Your task to perform on an android device: Open sound settings Image 0: 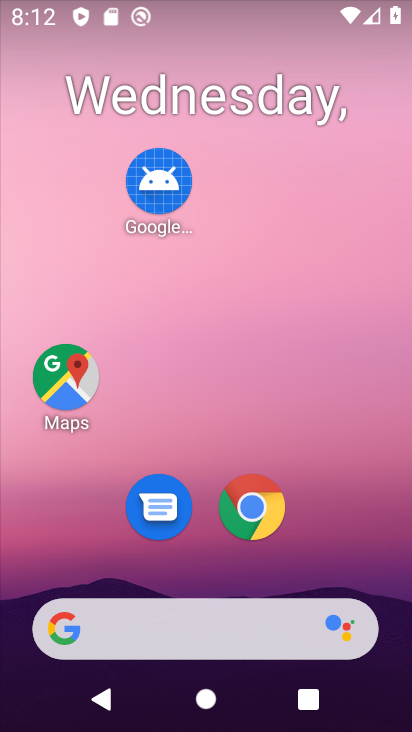
Step 0: drag from (208, 554) to (263, 39)
Your task to perform on an android device: Open sound settings Image 1: 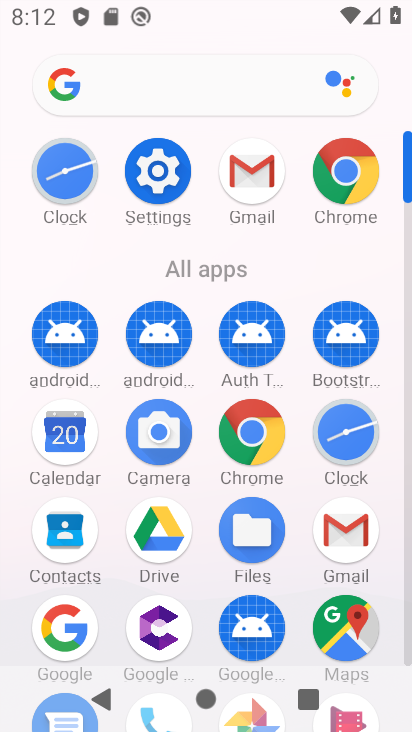
Step 1: click (150, 224)
Your task to perform on an android device: Open sound settings Image 2: 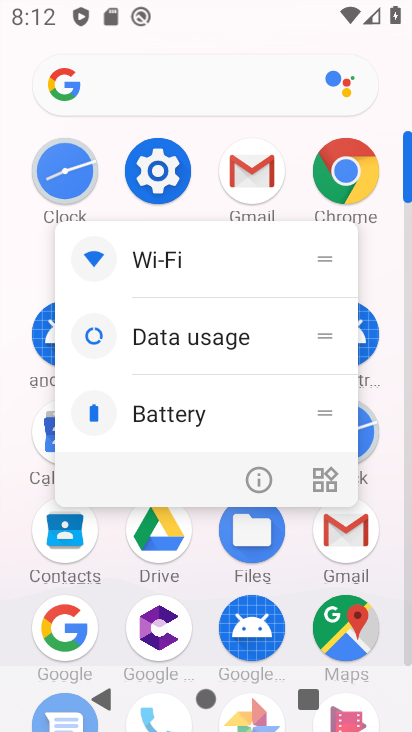
Step 2: click (154, 205)
Your task to perform on an android device: Open sound settings Image 3: 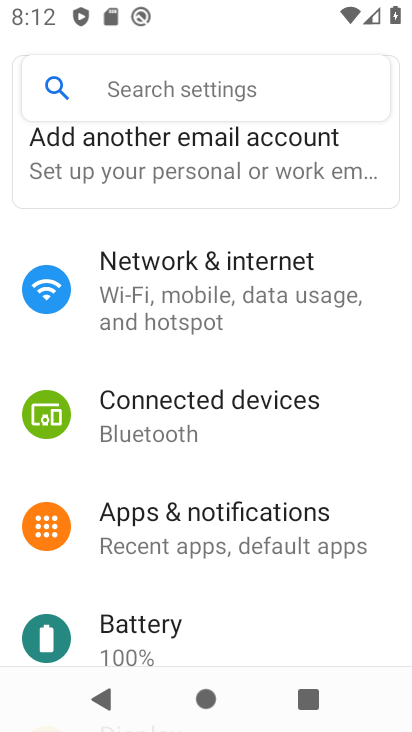
Step 3: drag from (173, 600) to (167, 207)
Your task to perform on an android device: Open sound settings Image 4: 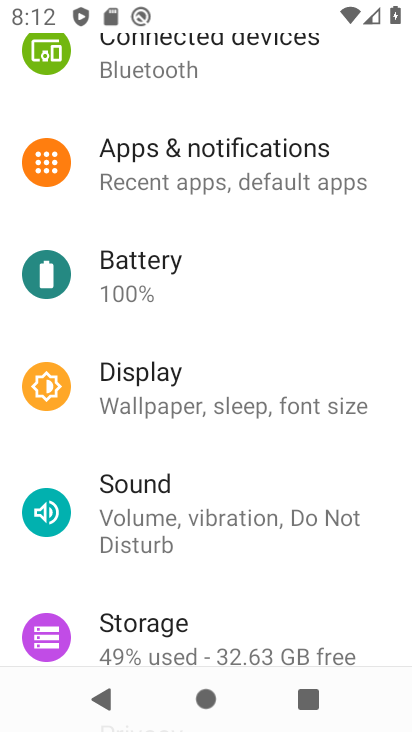
Step 4: click (149, 483)
Your task to perform on an android device: Open sound settings Image 5: 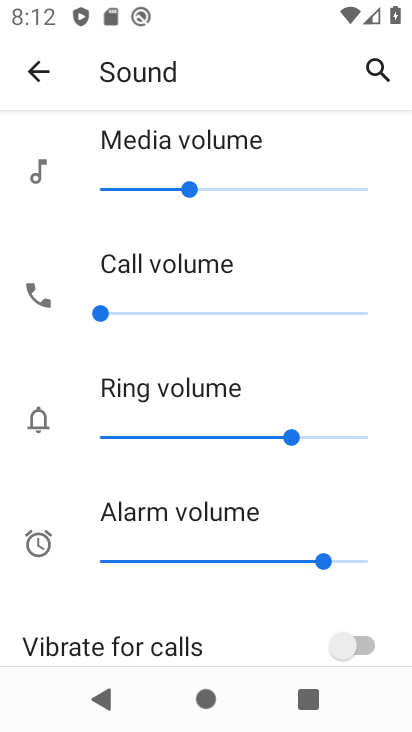
Step 5: task complete